Your task to perform on an android device: What's the weather going to be tomorrow? Image 0: 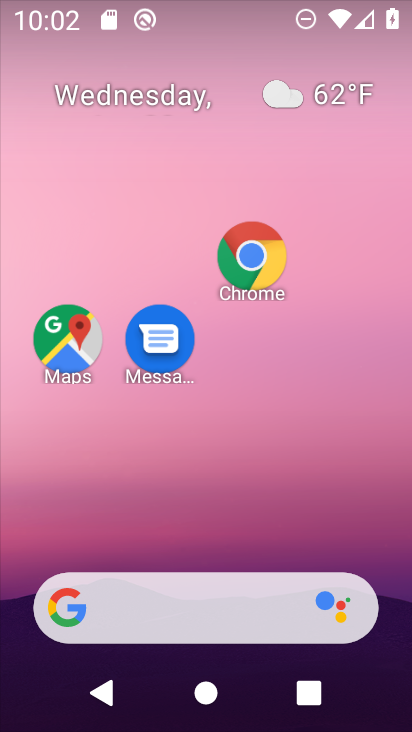
Step 0: drag from (234, 530) to (181, 102)
Your task to perform on an android device: What's the weather going to be tomorrow? Image 1: 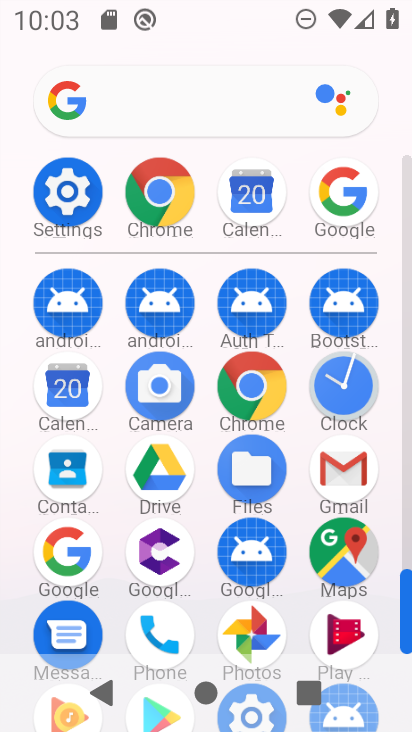
Step 1: click (342, 198)
Your task to perform on an android device: What's the weather going to be tomorrow? Image 2: 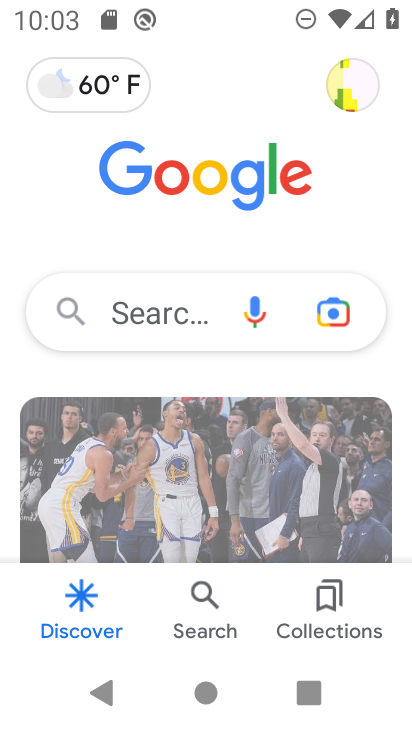
Step 2: click (151, 307)
Your task to perform on an android device: What's the weather going to be tomorrow? Image 3: 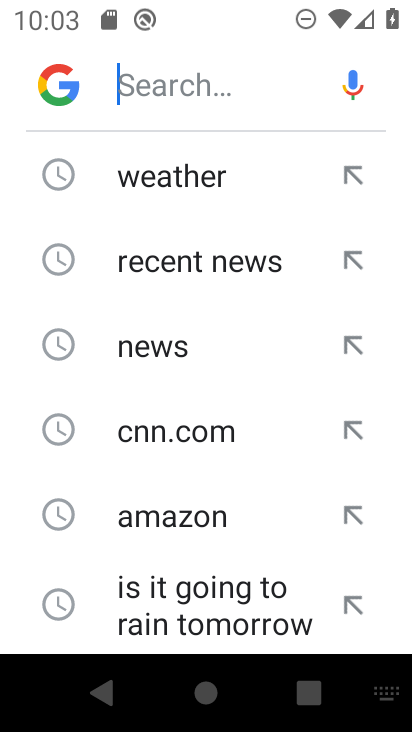
Step 3: type "the weather going to be tomorrow"
Your task to perform on an android device: What's the weather going to be tomorrow? Image 4: 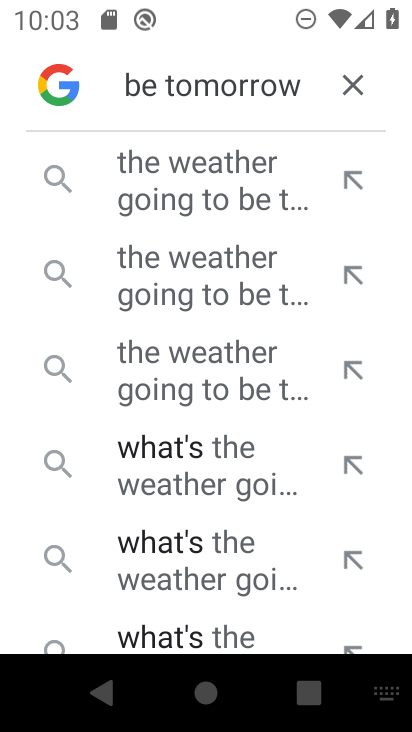
Step 4: click (186, 194)
Your task to perform on an android device: What's the weather going to be tomorrow? Image 5: 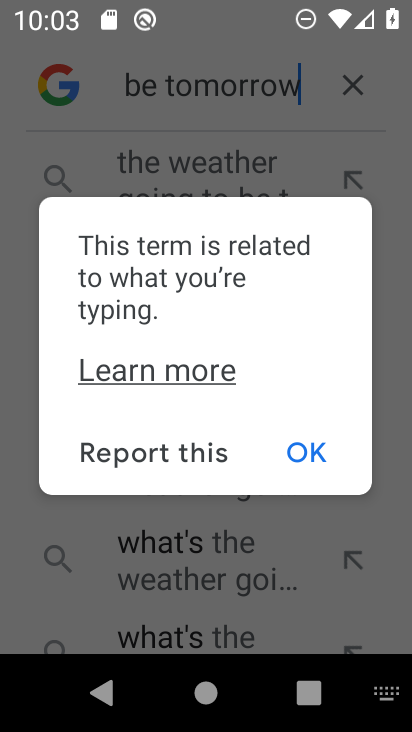
Step 5: click (302, 450)
Your task to perform on an android device: What's the weather going to be tomorrow? Image 6: 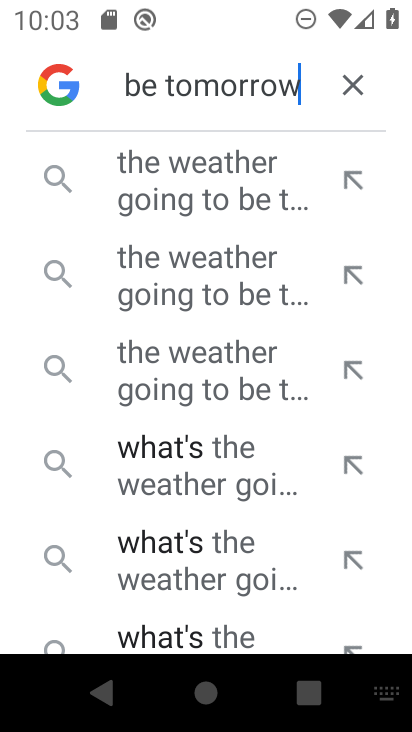
Step 6: click (204, 294)
Your task to perform on an android device: What's the weather going to be tomorrow? Image 7: 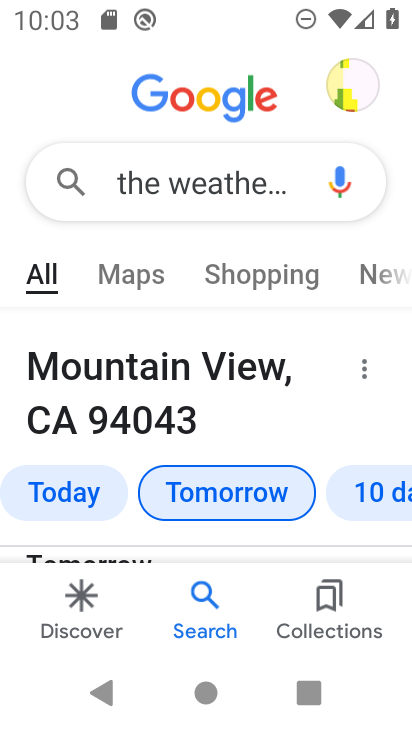
Step 7: task complete